Your task to perform on an android device: open a new tab in the chrome app Image 0: 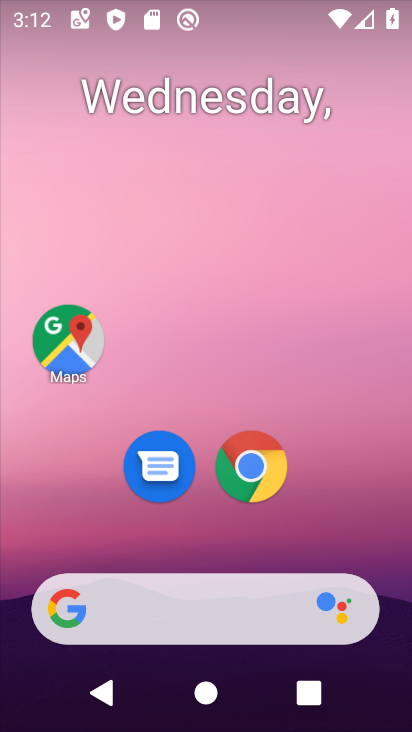
Step 0: click (240, 487)
Your task to perform on an android device: open a new tab in the chrome app Image 1: 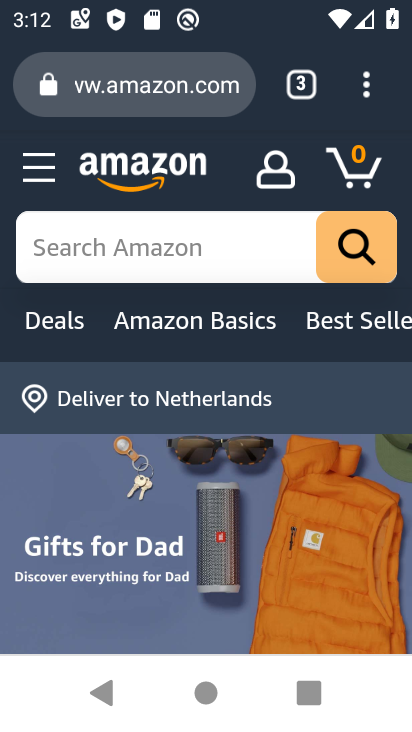
Step 1: click (313, 81)
Your task to perform on an android device: open a new tab in the chrome app Image 2: 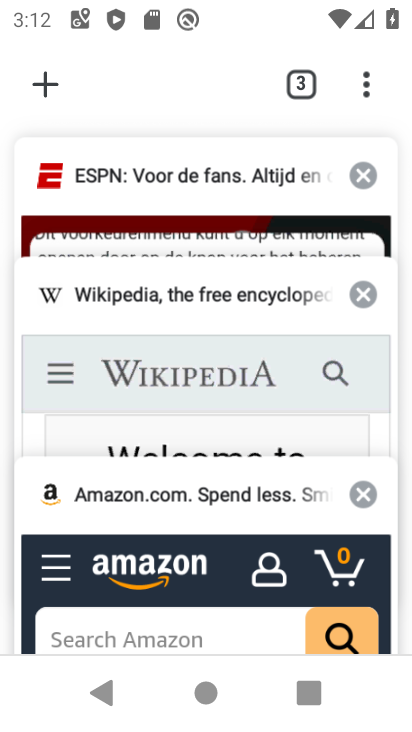
Step 2: click (45, 76)
Your task to perform on an android device: open a new tab in the chrome app Image 3: 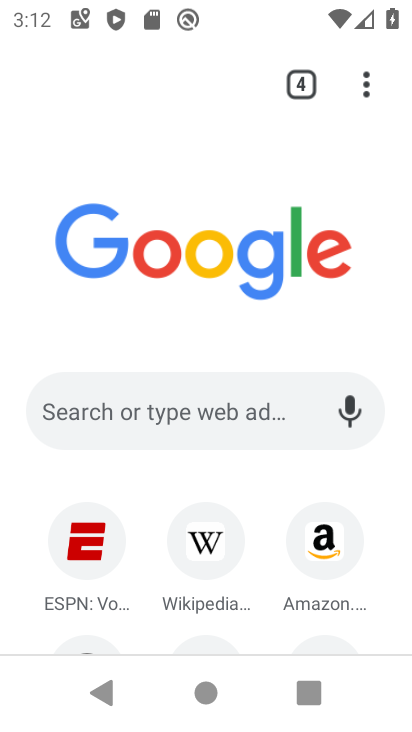
Step 3: task complete